Your task to perform on an android device: Open display settings Image 0: 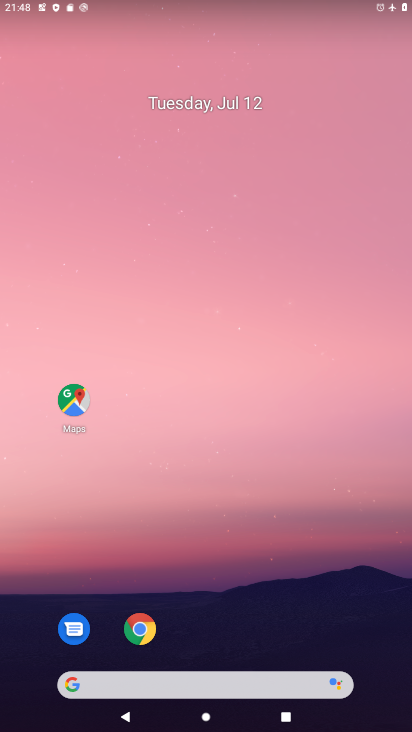
Step 0: drag from (271, 607) to (261, 129)
Your task to perform on an android device: Open display settings Image 1: 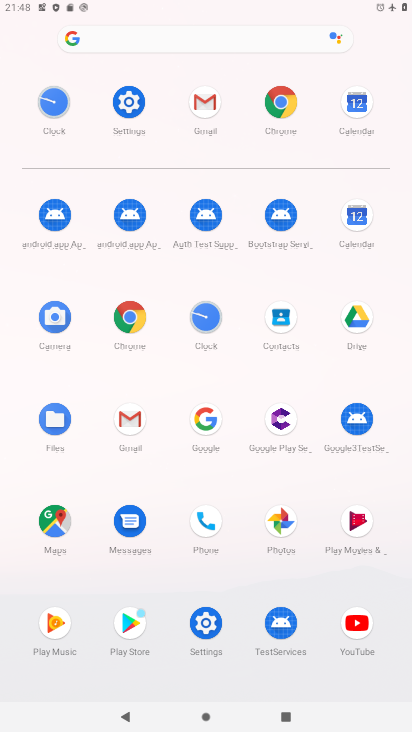
Step 1: click (125, 93)
Your task to perform on an android device: Open display settings Image 2: 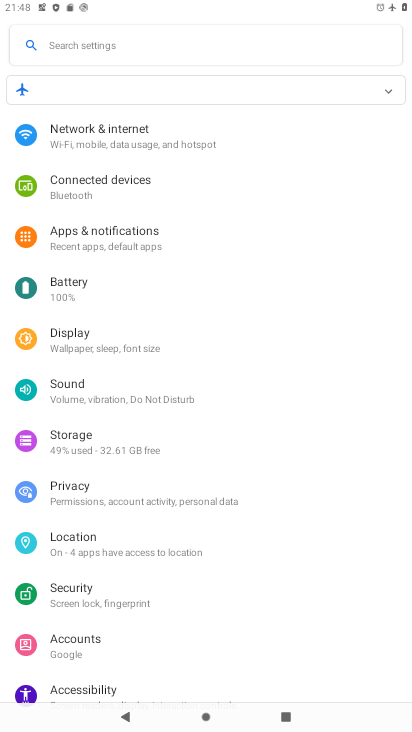
Step 2: click (96, 346)
Your task to perform on an android device: Open display settings Image 3: 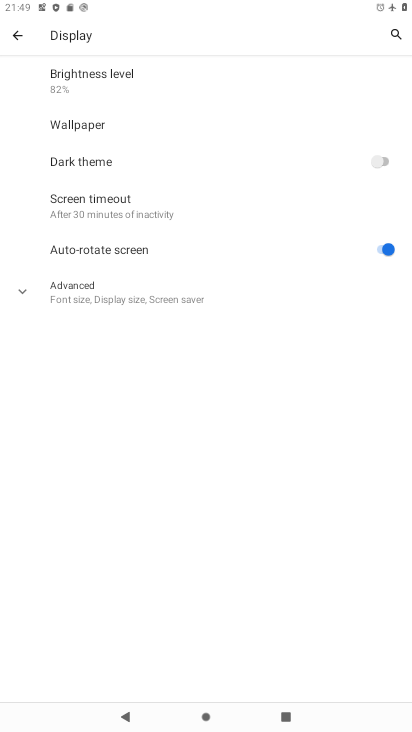
Step 3: task complete